Your task to perform on an android device: Open accessibility settings Image 0: 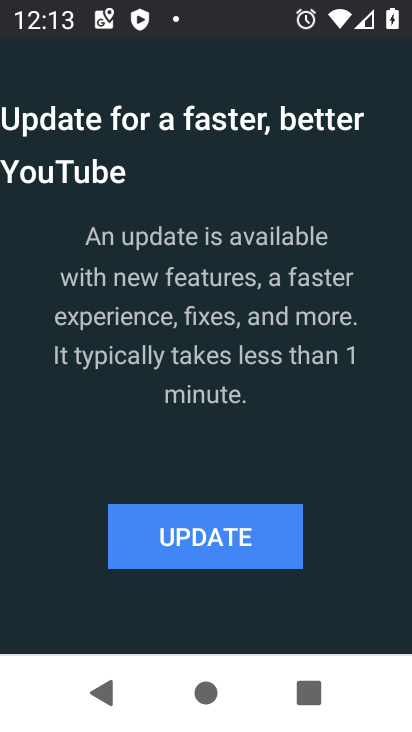
Step 0: press home button
Your task to perform on an android device: Open accessibility settings Image 1: 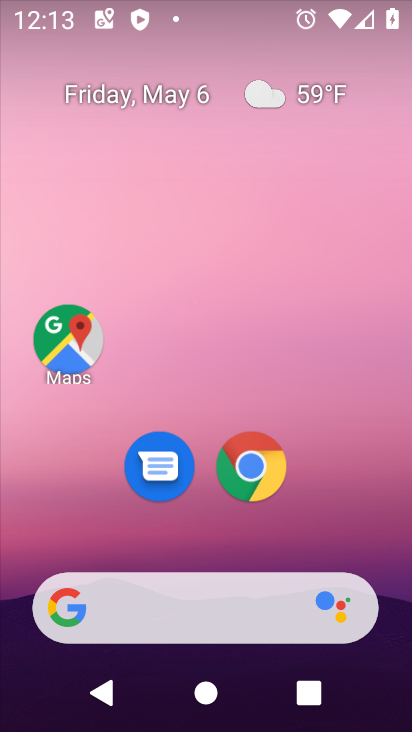
Step 1: drag from (221, 567) to (262, 114)
Your task to perform on an android device: Open accessibility settings Image 2: 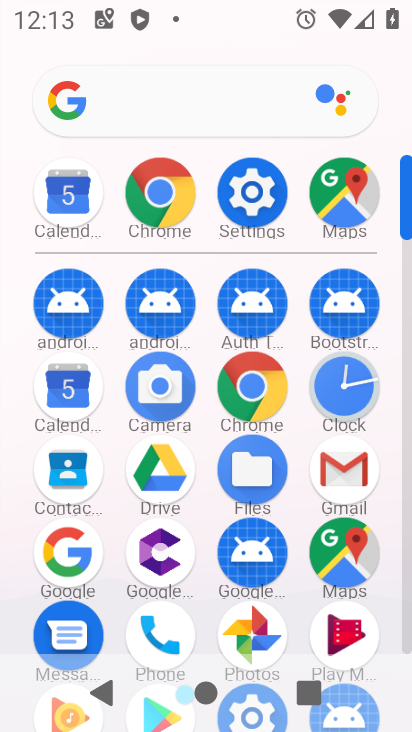
Step 2: click (252, 194)
Your task to perform on an android device: Open accessibility settings Image 3: 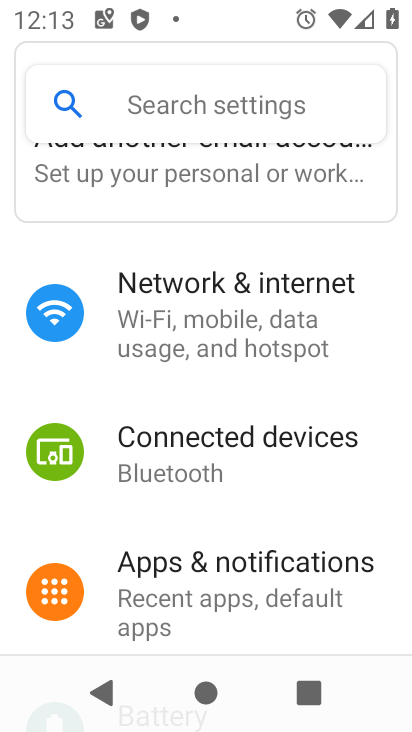
Step 3: drag from (208, 512) to (273, 233)
Your task to perform on an android device: Open accessibility settings Image 4: 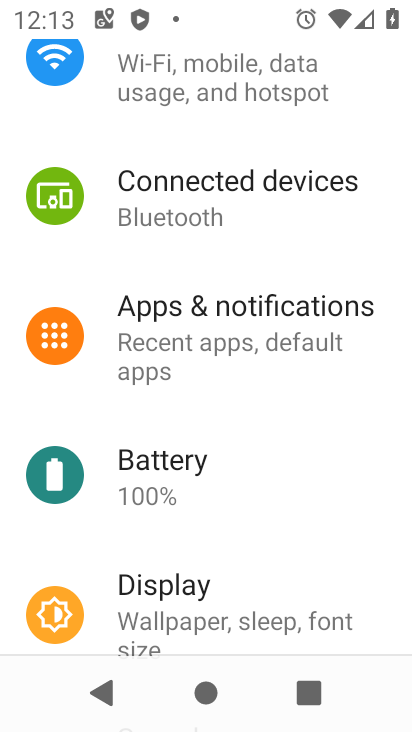
Step 4: drag from (239, 576) to (302, 283)
Your task to perform on an android device: Open accessibility settings Image 5: 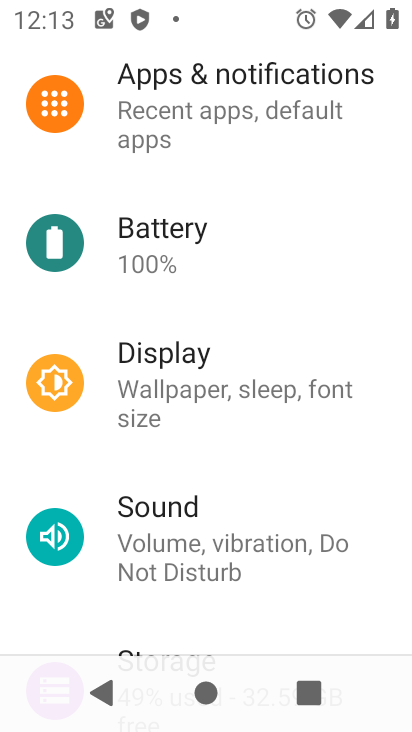
Step 5: drag from (256, 578) to (328, 298)
Your task to perform on an android device: Open accessibility settings Image 6: 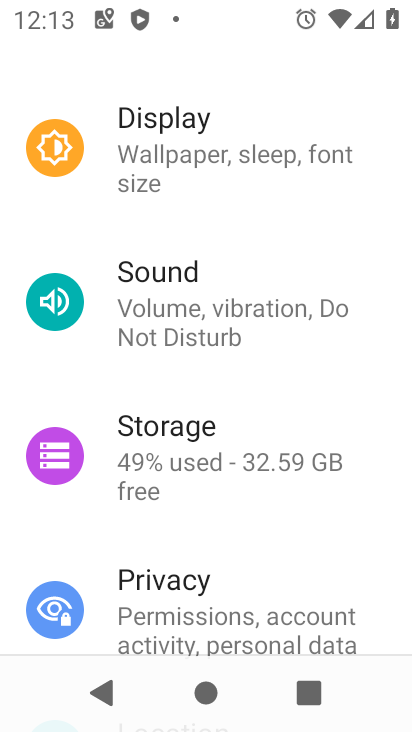
Step 6: drag from (237, 573) to (267, 227)
Your task to perform on an android device: Open accessibility settings Image 7: 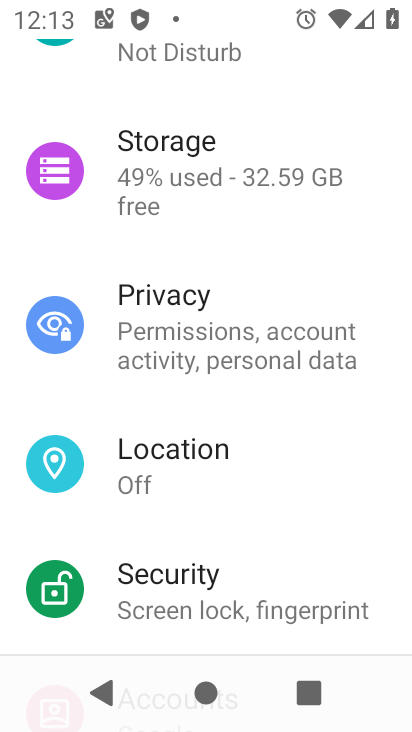
Step 7: drag from (236, 556) to (290, 257)
Your task to perform on an android device: Open accessibility settings Image 8: 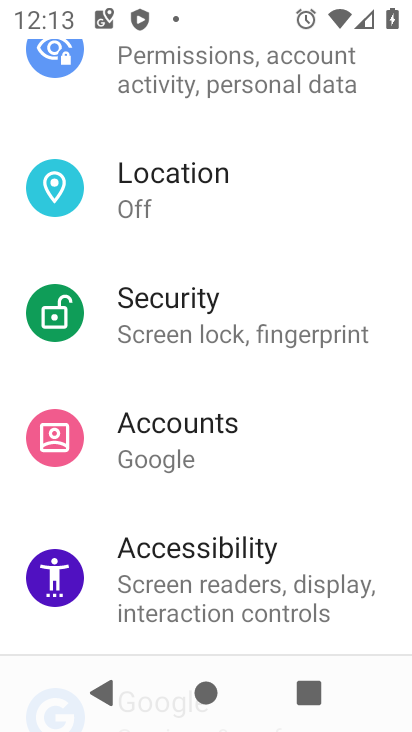
Step 8: click (247, 574)
Your task to perform on an android device: Open accessibility settings Image 9: 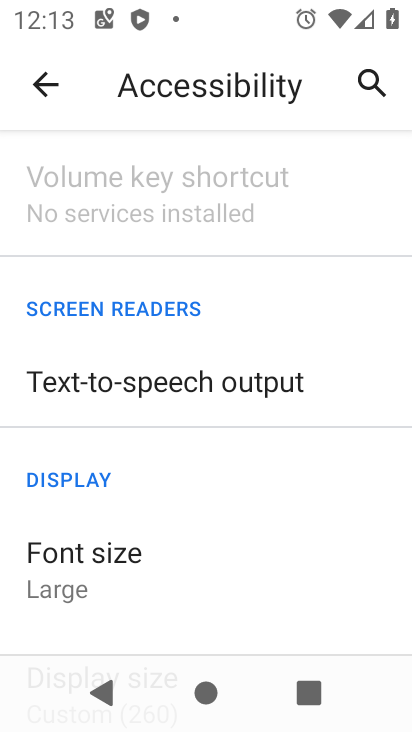
Step 9: task complete